Your task to perform on an android device: Search for "jbl flip 4" on bestbuy, select the first entry, and add it to the cart. Image 0: 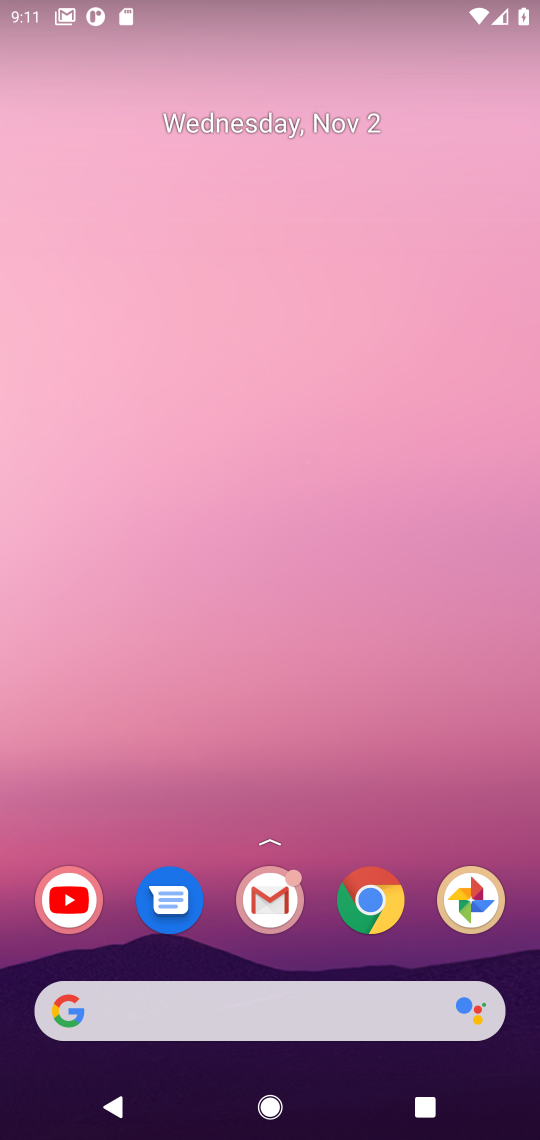
Step 0: click (359, 915)
Your task to perform on an android device: Search for "jbl flip 4" on bestbuy, select the first entry, and add it to the cart. Image 1: 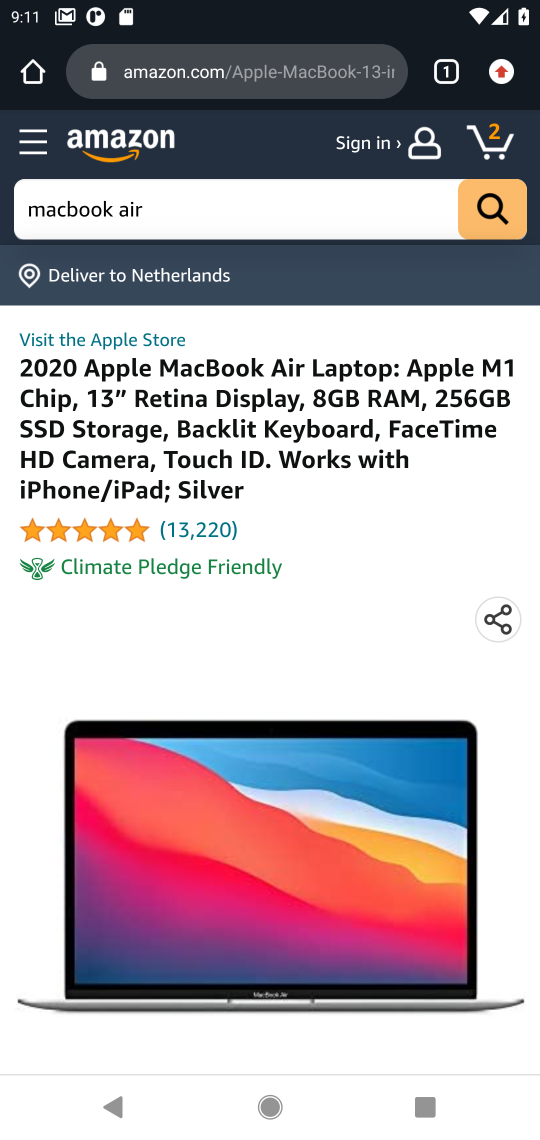
Step 1: click (193, 81)
Your task to perform on an android device: Search for "jbl flip 4" on bestbuy, select the first entry, and add it to the cart. Image 2: 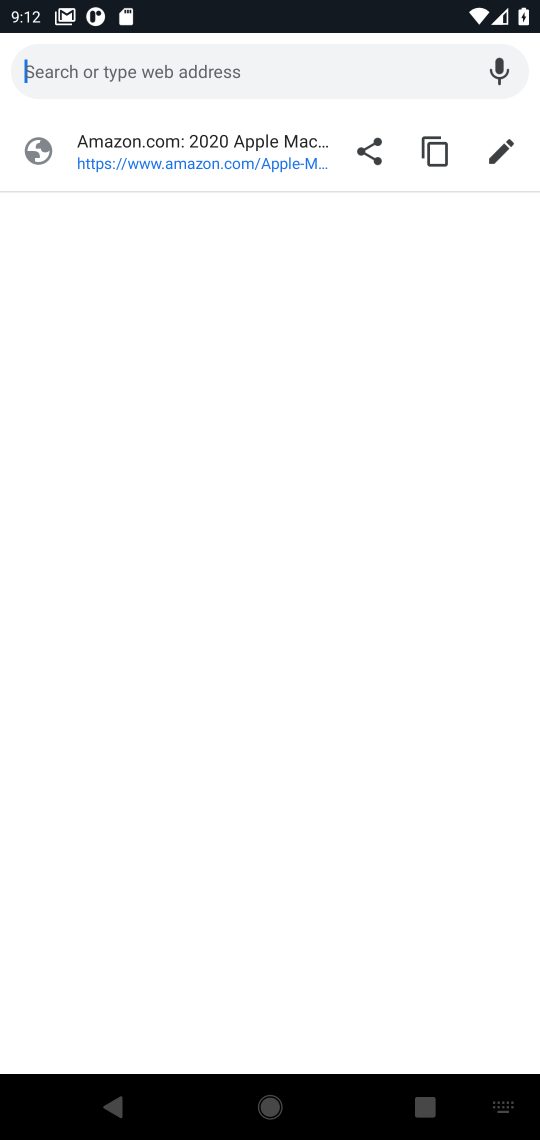
Step 2: type "bestbuy"
Your task to perform on an android device: Search for "jbl flip 4" on bestbuy, select the first entry, and add it to the cart. Image 3: 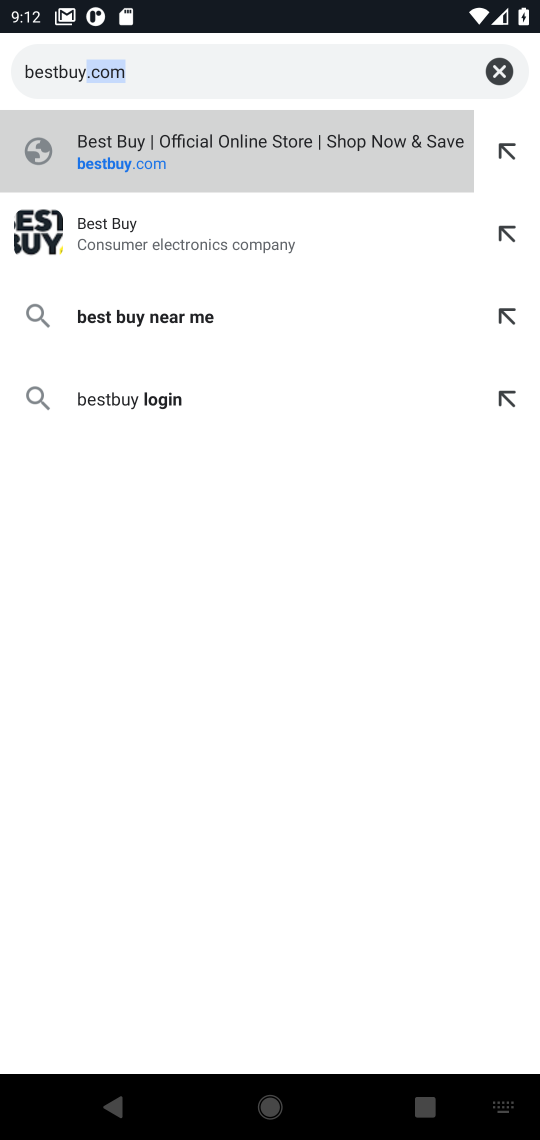
Step 3: click (214, 248)
Your task to perform on an android device: Search for "jbl flip 4" on bestbuy, select the first entry, and add it to the cart. Image 4: 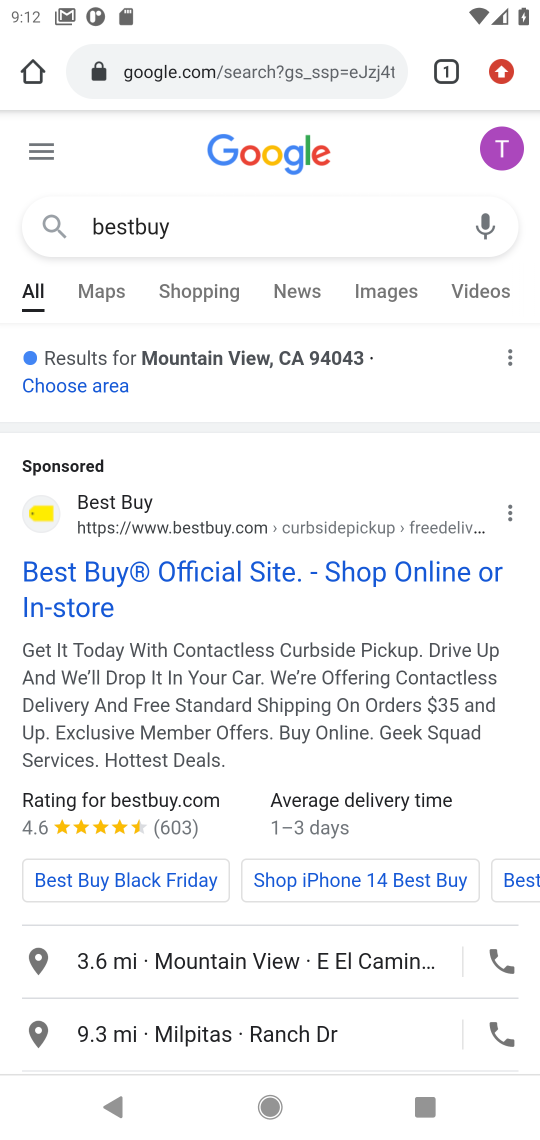
Step 4: click (73, 576)
Your task to perform on an android device: Search for "jbl flip 4" on bestbuy, select the first entry, and add it to the cart. Image 5: 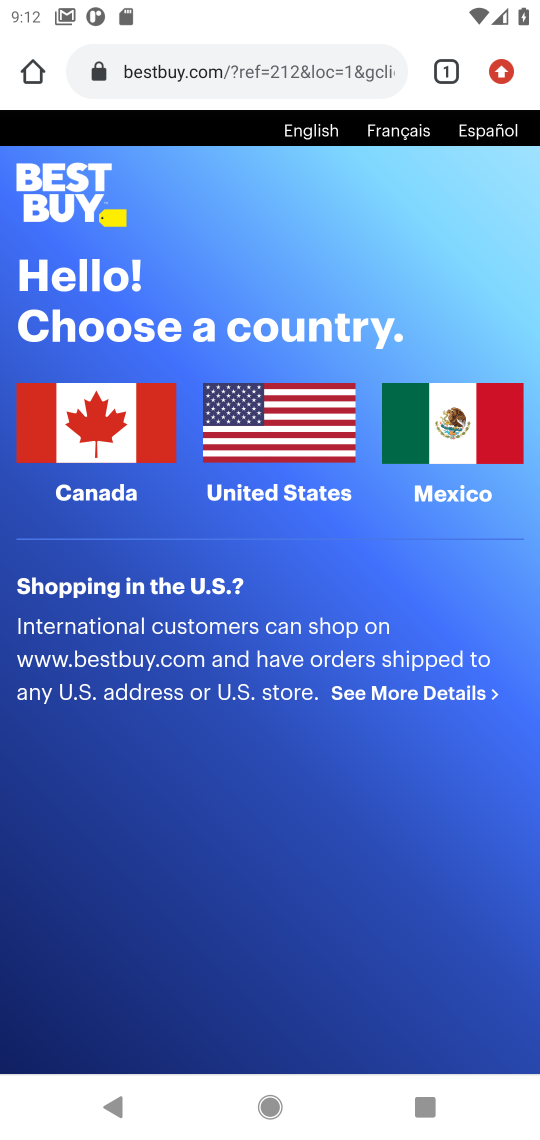
Step 5: click (255, 381)
Your task to perform on an android device: Search for "jbl flip 4" on bestbuy, select the first entry, and add it to the cart. Image 6: 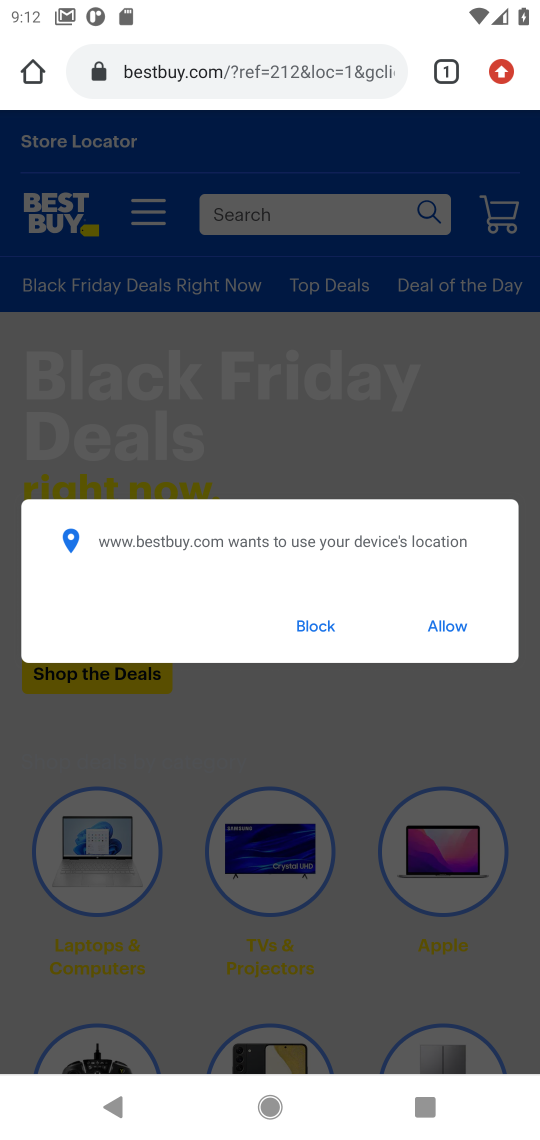
Step 6: click (429, 618)
Your task to perform on an android device: Search for "jbl flip 4" on bestbuy, select the first entry, and add it to the cart. Image 7: 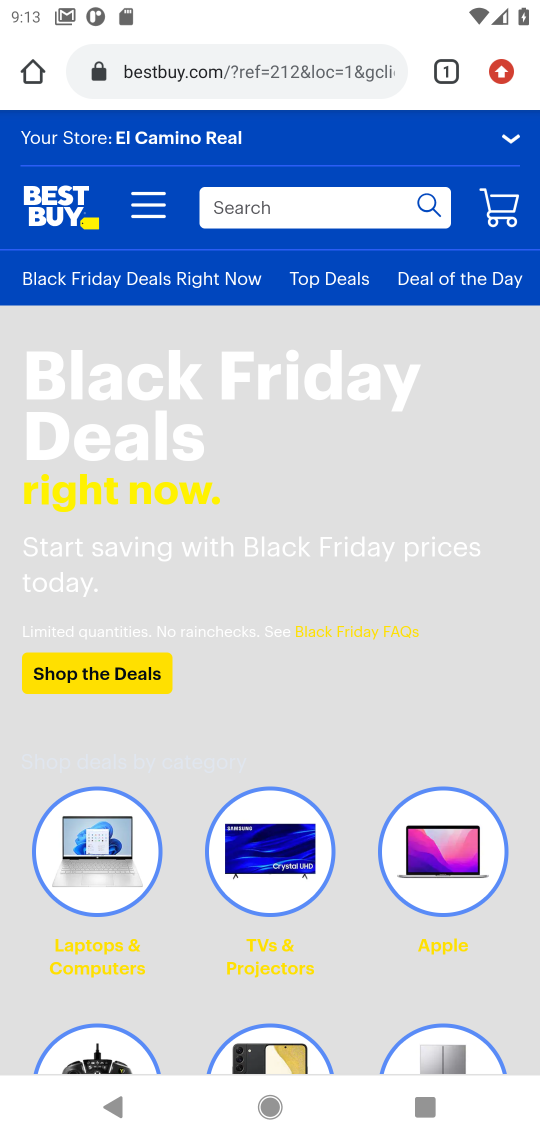
Step 7: click (330, 199)
Your task to perform on an android device: Search for "jbl flip 4" on bestbuy, select the first entry, and add it to the cart. Image 8: 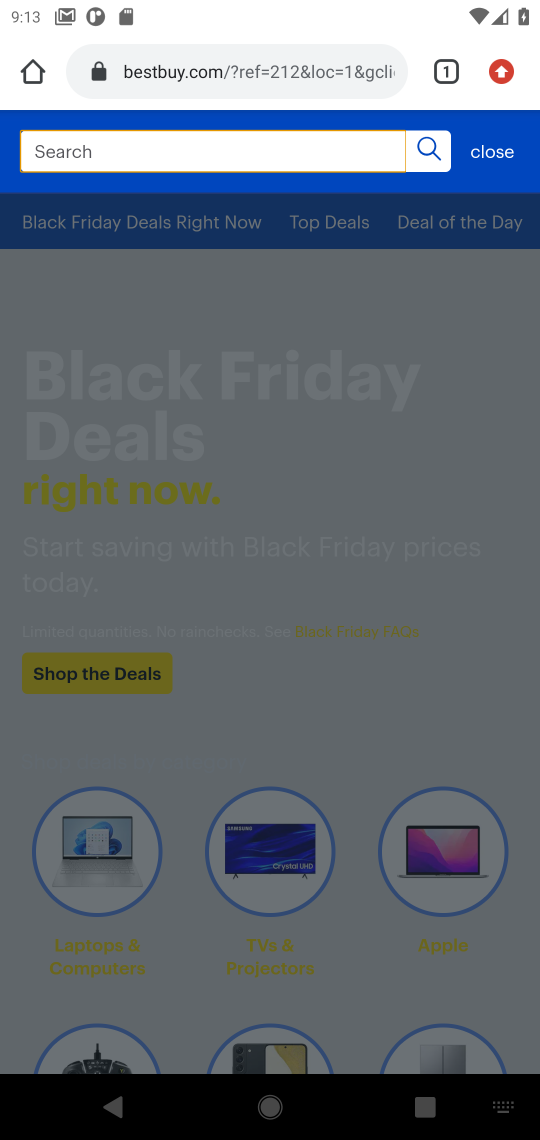
Step 8: type "jbl flip 4"
Your task to perform on an android device: Search for "jbl flip 4" on bestbuy, select the first entry, and add it to the cart. Image 9: 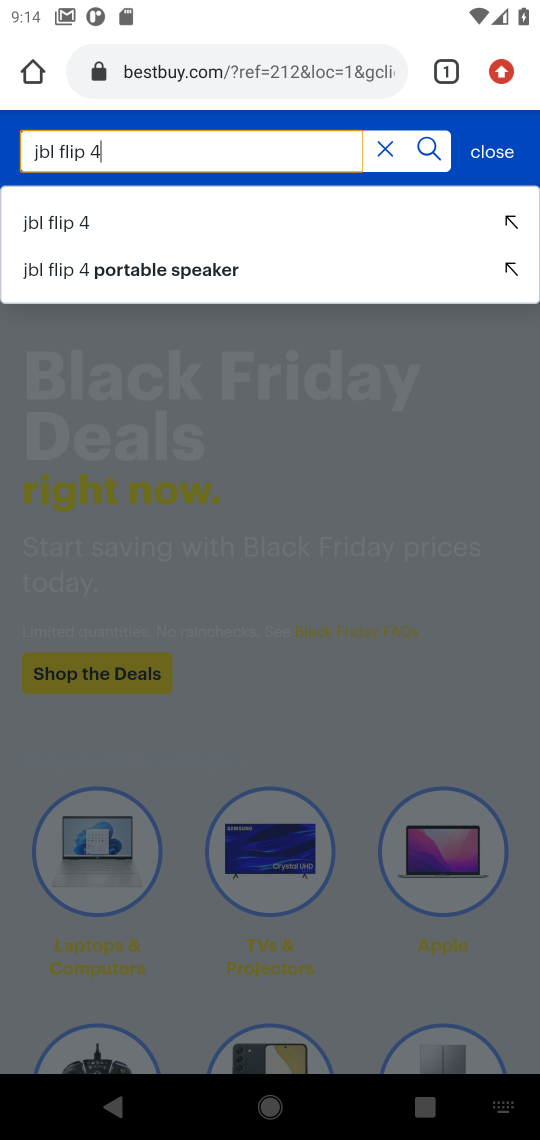
Step 9: click (437, 151)
Your task to perform on an android device: Search for "jbl flip 4" on bestbuy, select the first entry, and add it to the cart. Image 10: 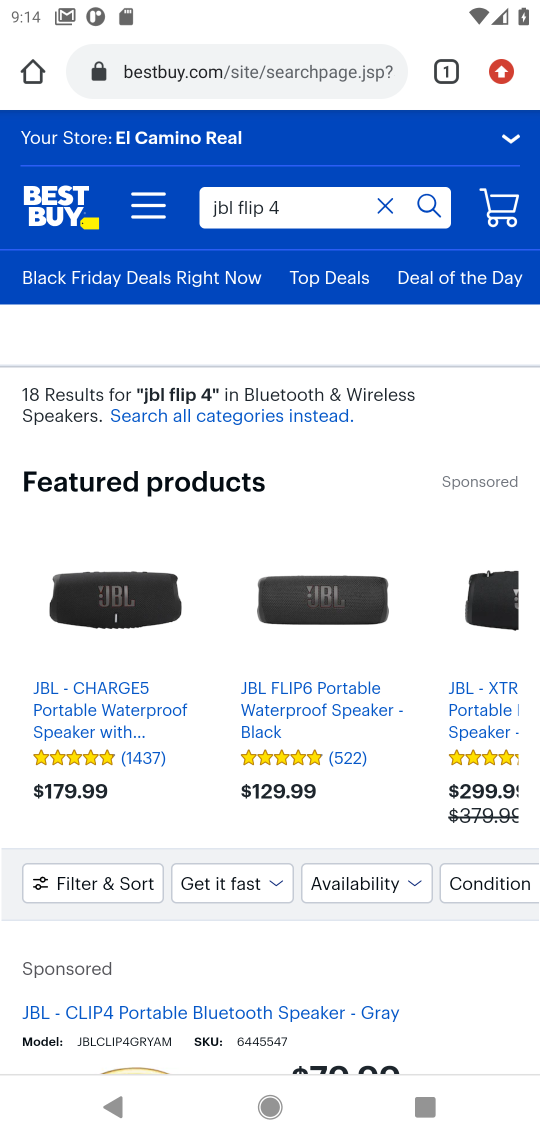
Step 10: task complete